Your task to perform on an android device: Open Android settings Image 0: 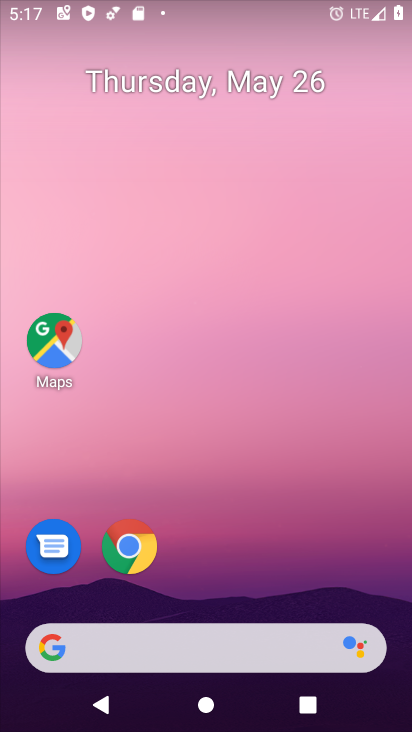
Step 0: drag from (216, 540) to (246, 41)
Your task to perform on an android device: Open Android settings Image 1: 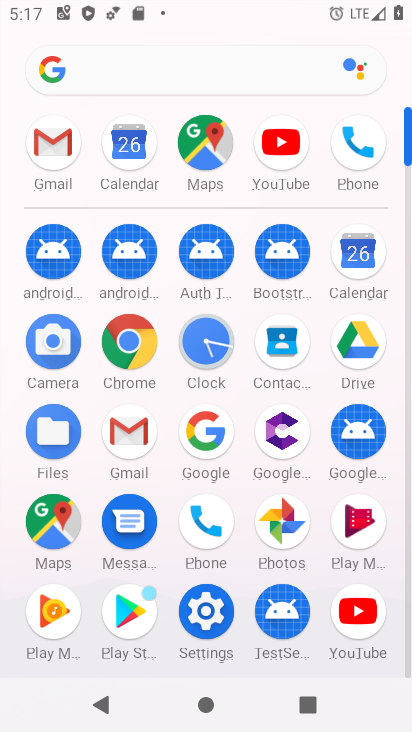
Step 1: click (210, 609)
Your task to perform on an android device: Open Android settings Image 2: 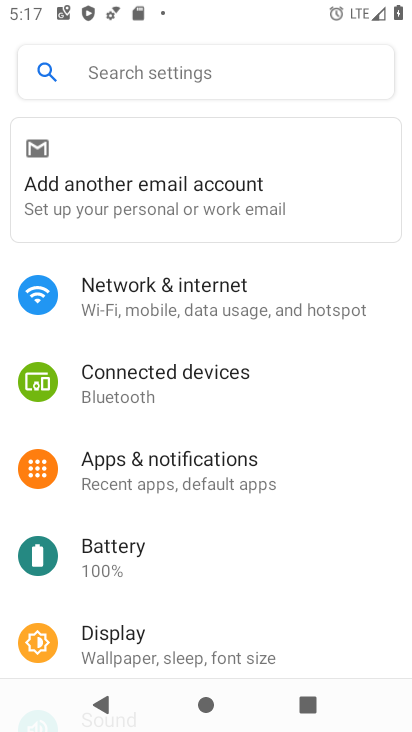
Step 2: drag from (212, 595) to (149, 715)
Your task to perform on an android device: Open Android settings Image 3: 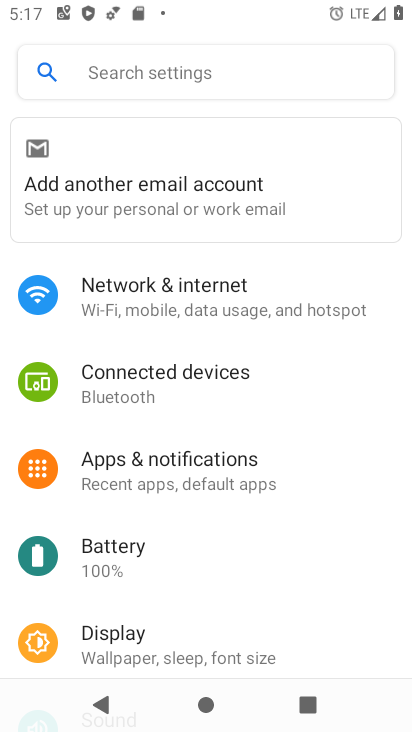
Step 3: click (103, 71)
Your task to perform on an android device: Open Android settings Image 4: 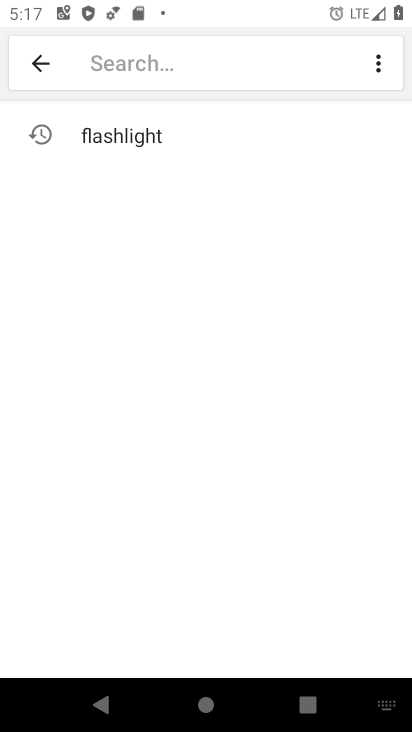
Step 4: type "sleep "
Your task to perform on an android device: Open Android settings Image 5: 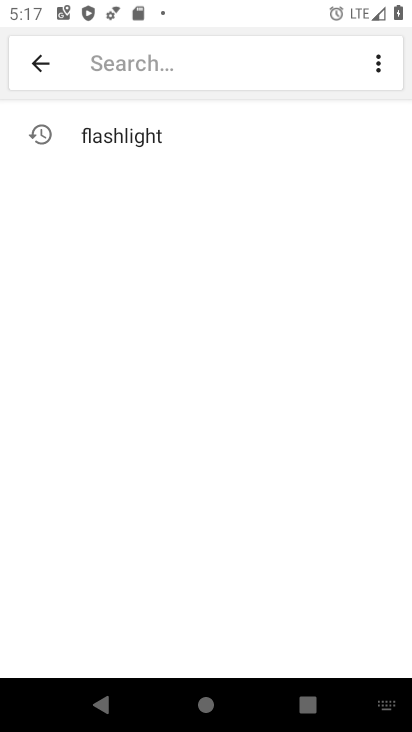
Step 5: click (33, 58)
Your task to perform on an android device: Open Android settings Image 6: 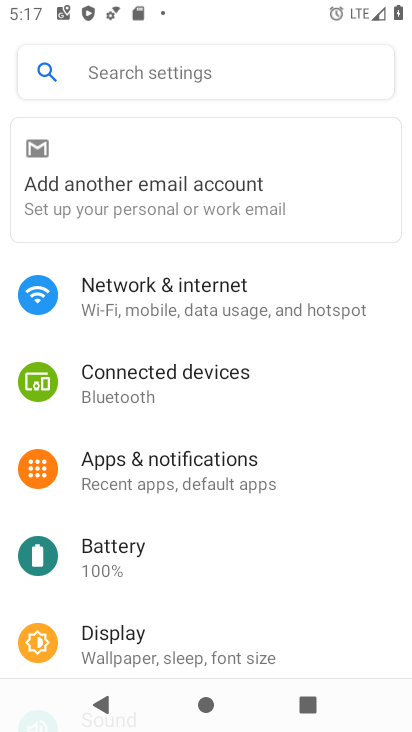
Step 6: drag from (235, 589) to (317, 68)
Your task to perform on an android device: Open Android settings Image 7: 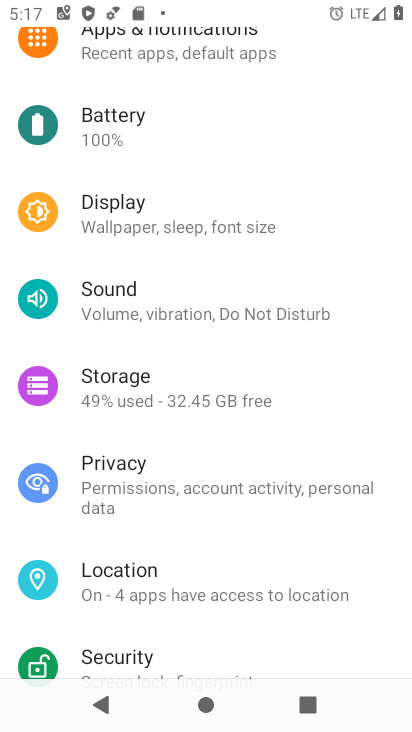
Step 7: drag from (179, 504) to (240, 0)
Your task to perform on an android device: Open Android settings Image 8: 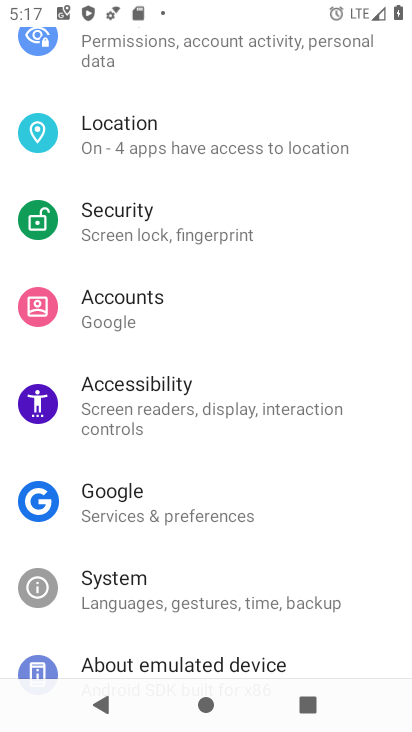
Step 8: drag from (168, 575) to (277, 6)
Your task to perform on an android device: Open Android settings Image 9: 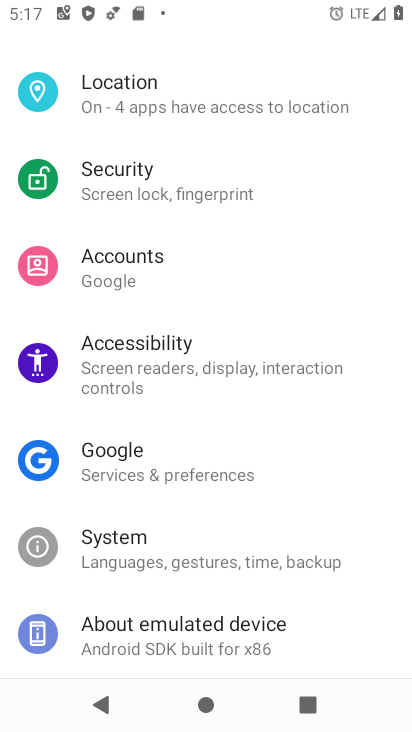
Step 9: click (141, 621)
Your task to perform on an android device: Open Android settings Image 10: 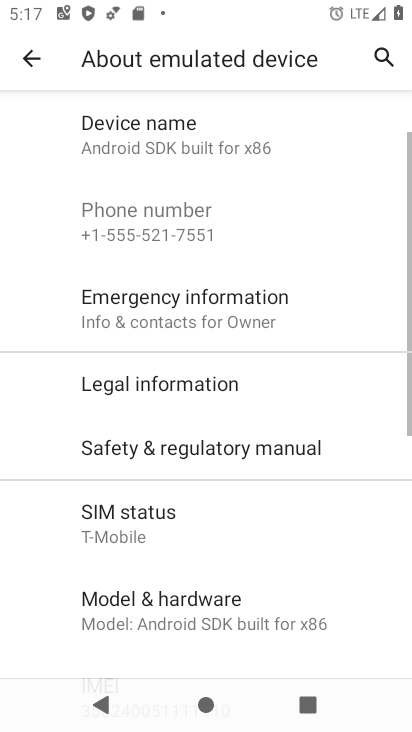
Step 10: task complete